Your task to perform on an android device: change your default location settings in chrome Image 0: 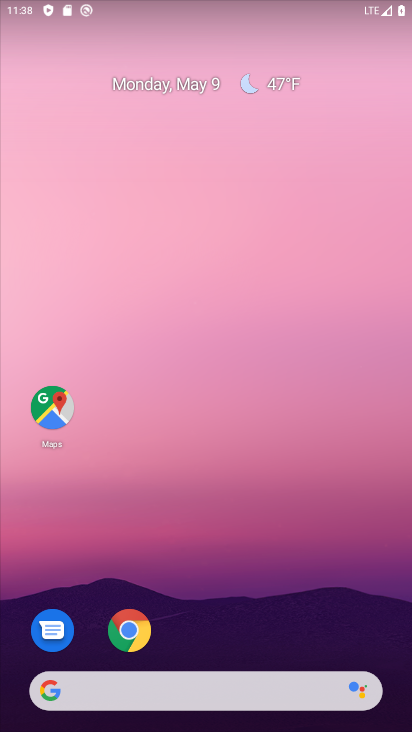
Step 0: press home button
Your task to perform on an android device: change your default location settings in chrome Image 1: 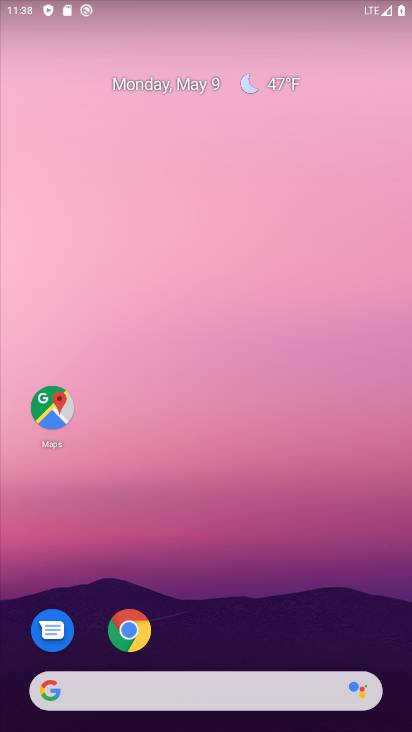
Step 1: drag from (176, 692) to (287, 218)
Your task to perform on an android device: change your default location settings in chrome Image 2: 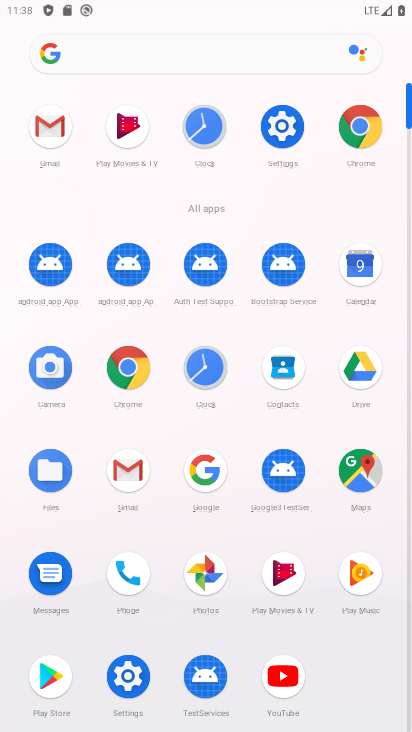
Step 2: click (352, 131)
Your task to perform on an android device: change your default location settings in chrome Image 3: 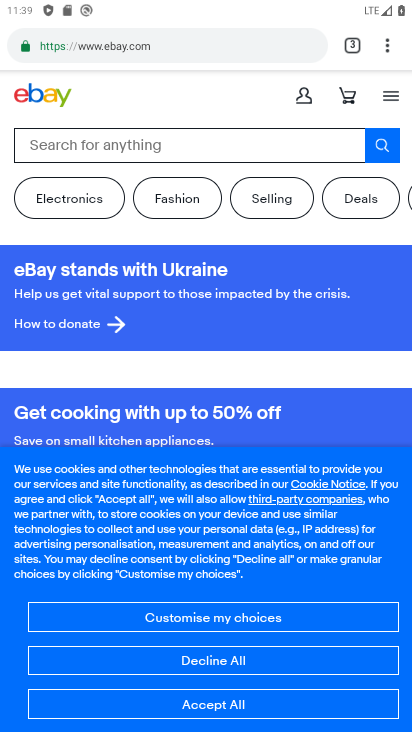
Step 3: drag from (387, 42) to (242, 545)
Your task to perform on an android device: change your default location settings in chrome Image 4: 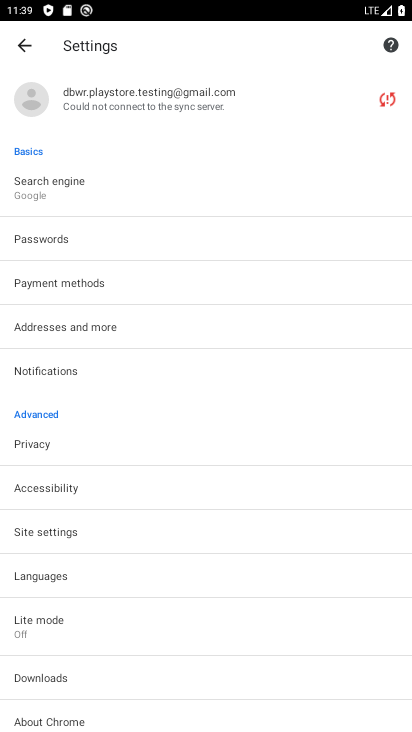
Step 4: click (81, 534)
Your task to perform on an android device: change your default location settings in chrome Image 5: 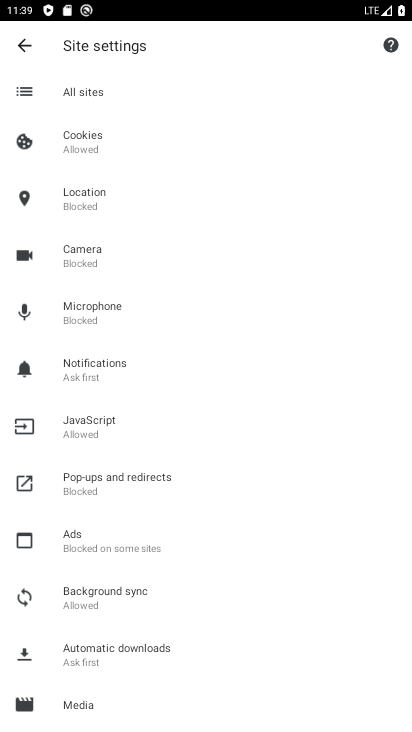
Step 5: click (95, 203)
Your task to perform on an android device: change your default location settings in chrome Image 6: 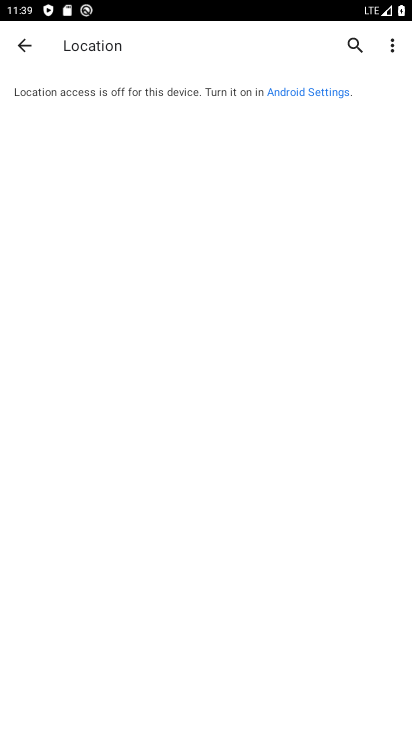
Step 6: click (308, 89)
Your task to perform on an android device: change your default location settings in chrome Image 7: 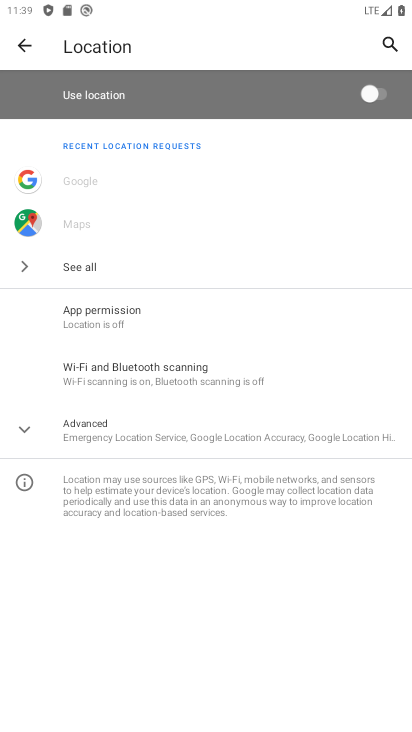
Step 7: click (376, 97)
Your task to perform on an android device: change your default location settings in chrome Image 8: 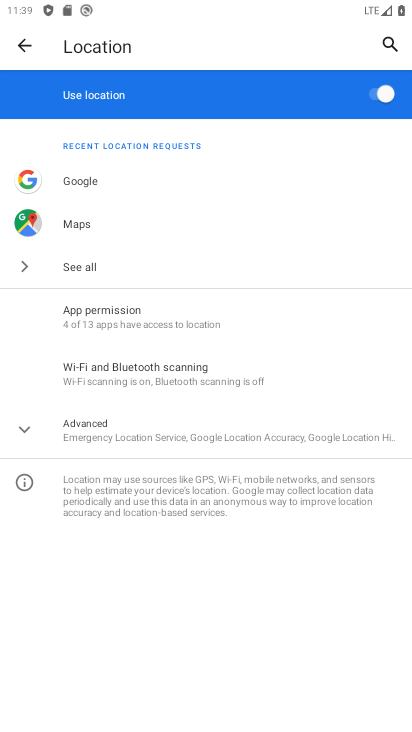
Step 8: task complete